Your task to perform on an android device: open app "Pandora - Music & Podcasts" Image 0: 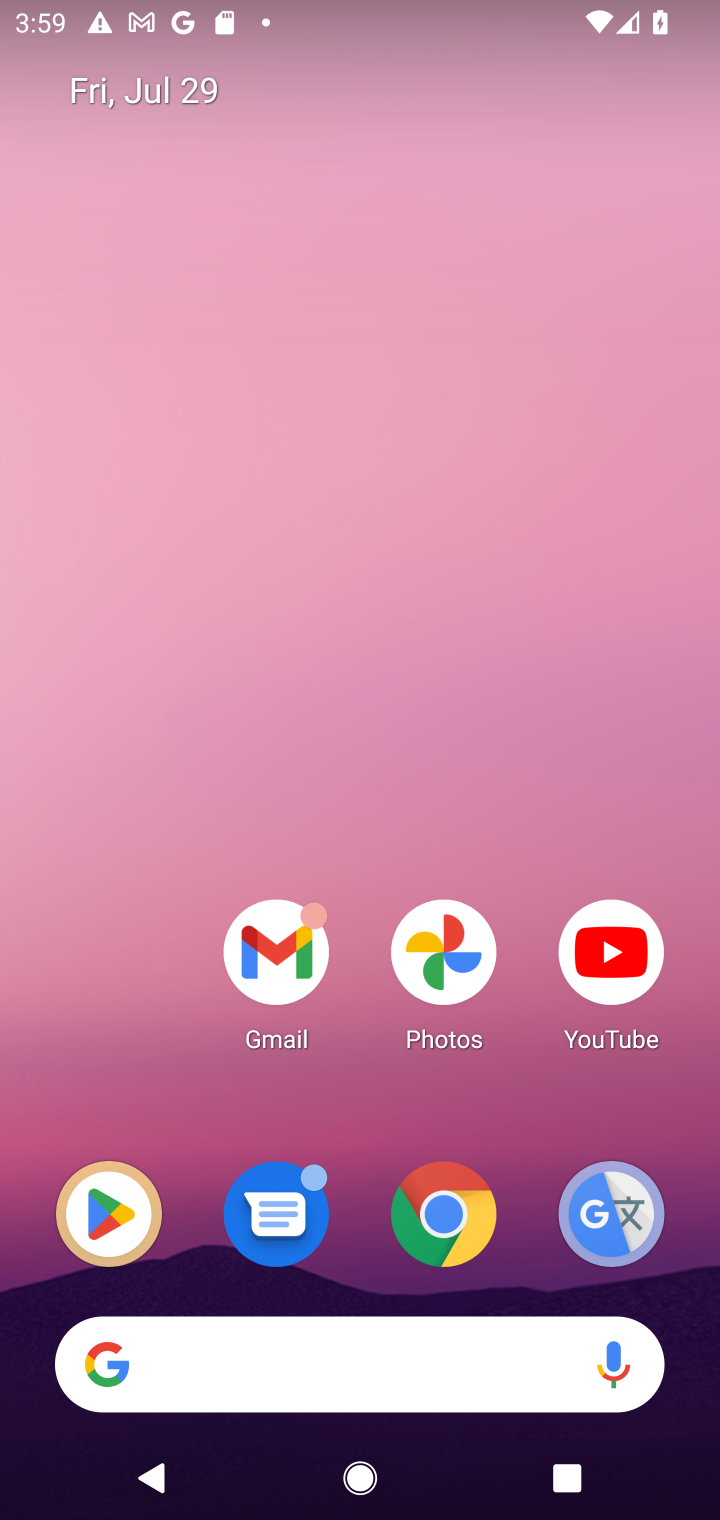
Step 0: click (99, 1236)
Your task to perform on an android device: open app "Pandora - Music & Podcasts" Image 1: 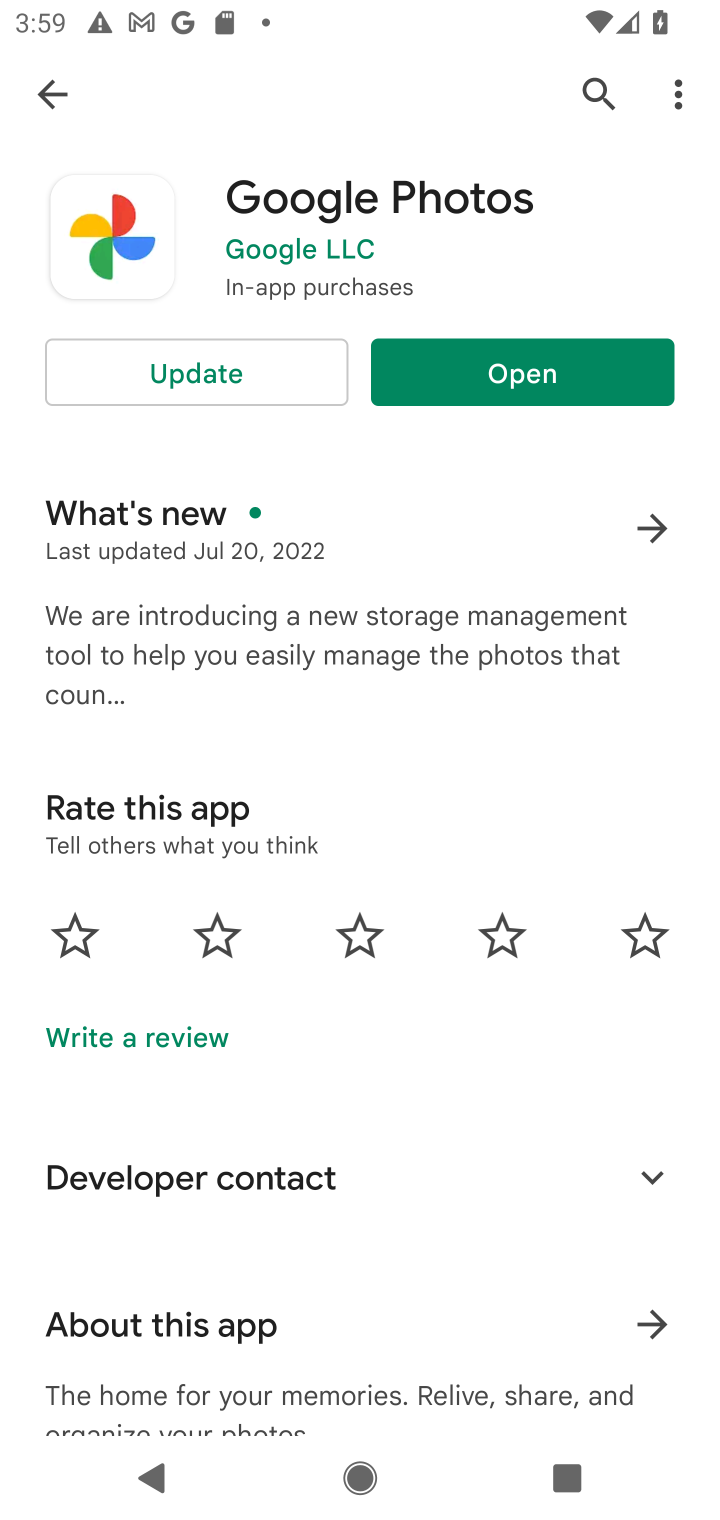
Step 1: click (52, 104)
Your task to perform on an android device: open app "Pandora - Music & Podcasts" Image 2: 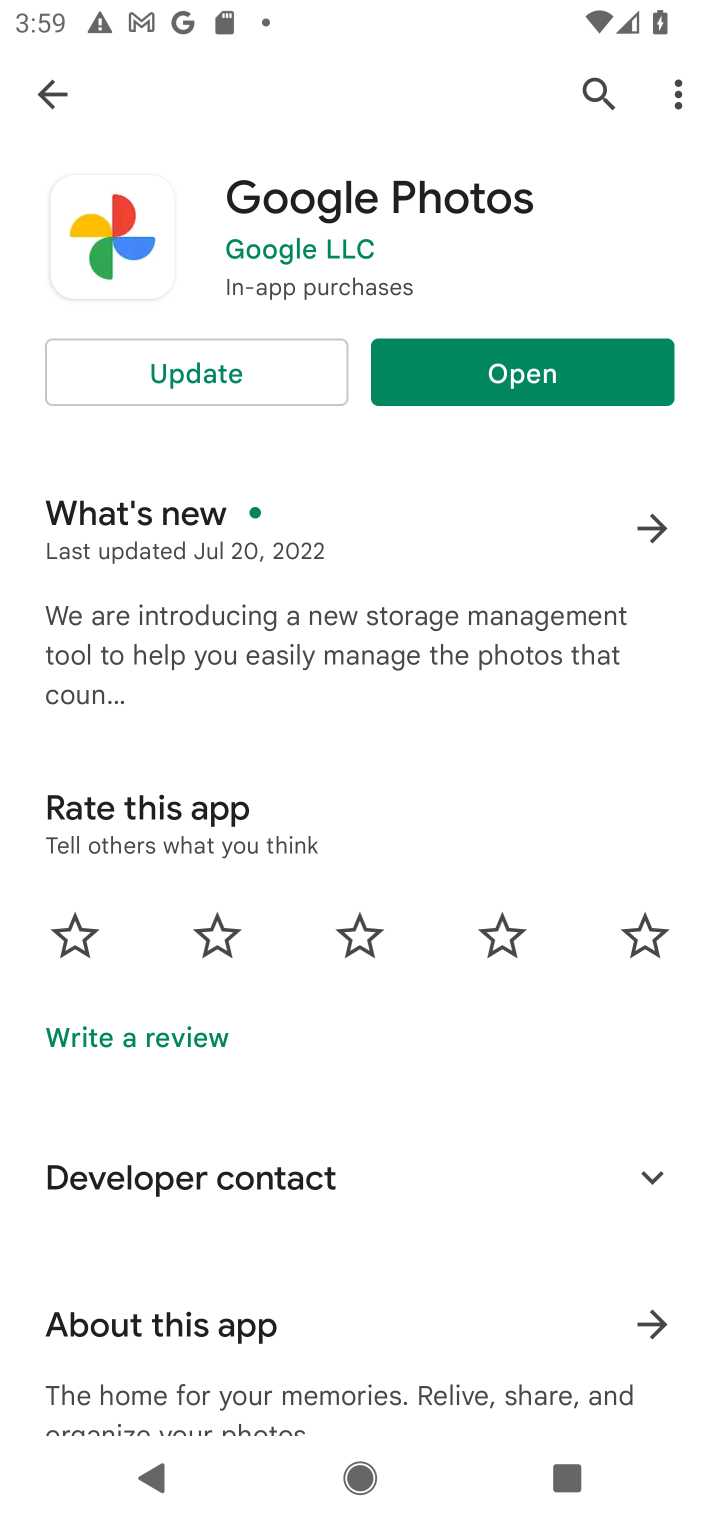
Step 2: click (54, 96)
Your task to perform on an android device: open app "Pandora - Music & Podcasts" Image 3: 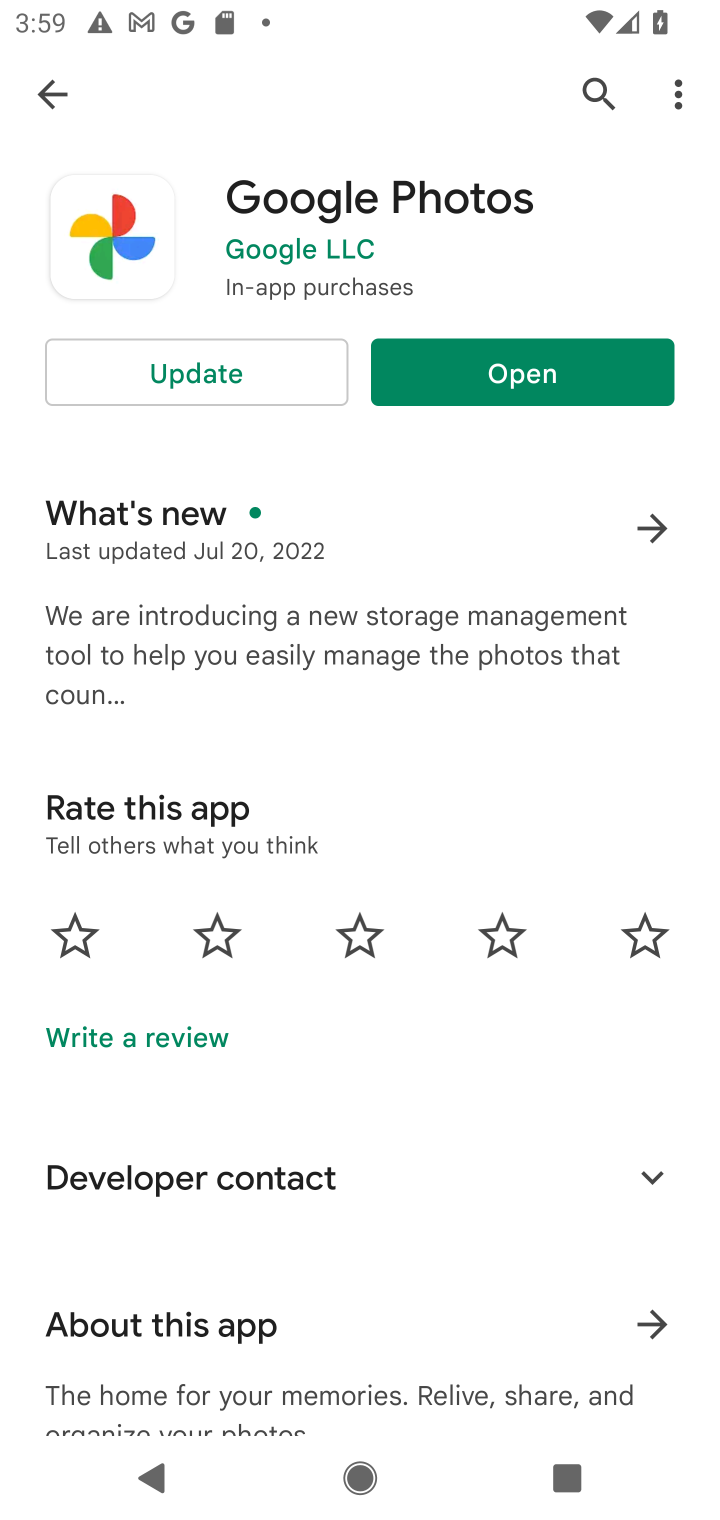
Step 3: click (54, 98)
Your task to perform on an android device: open app "Pandora - Music & Podcasts" Image 4: 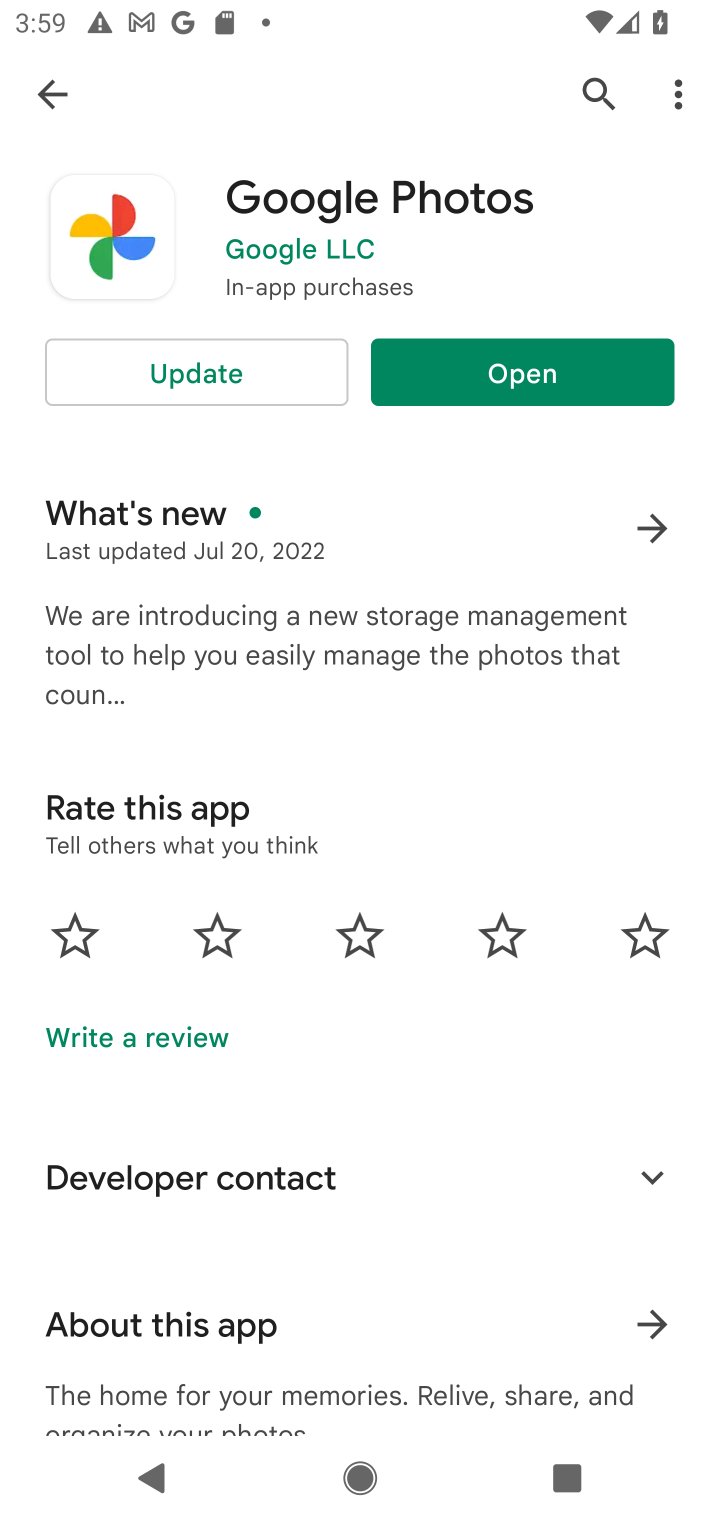
Step 4: press back button
Your task to perform on an android device: open app "Pandora - Music & Podcasts" Image 5: 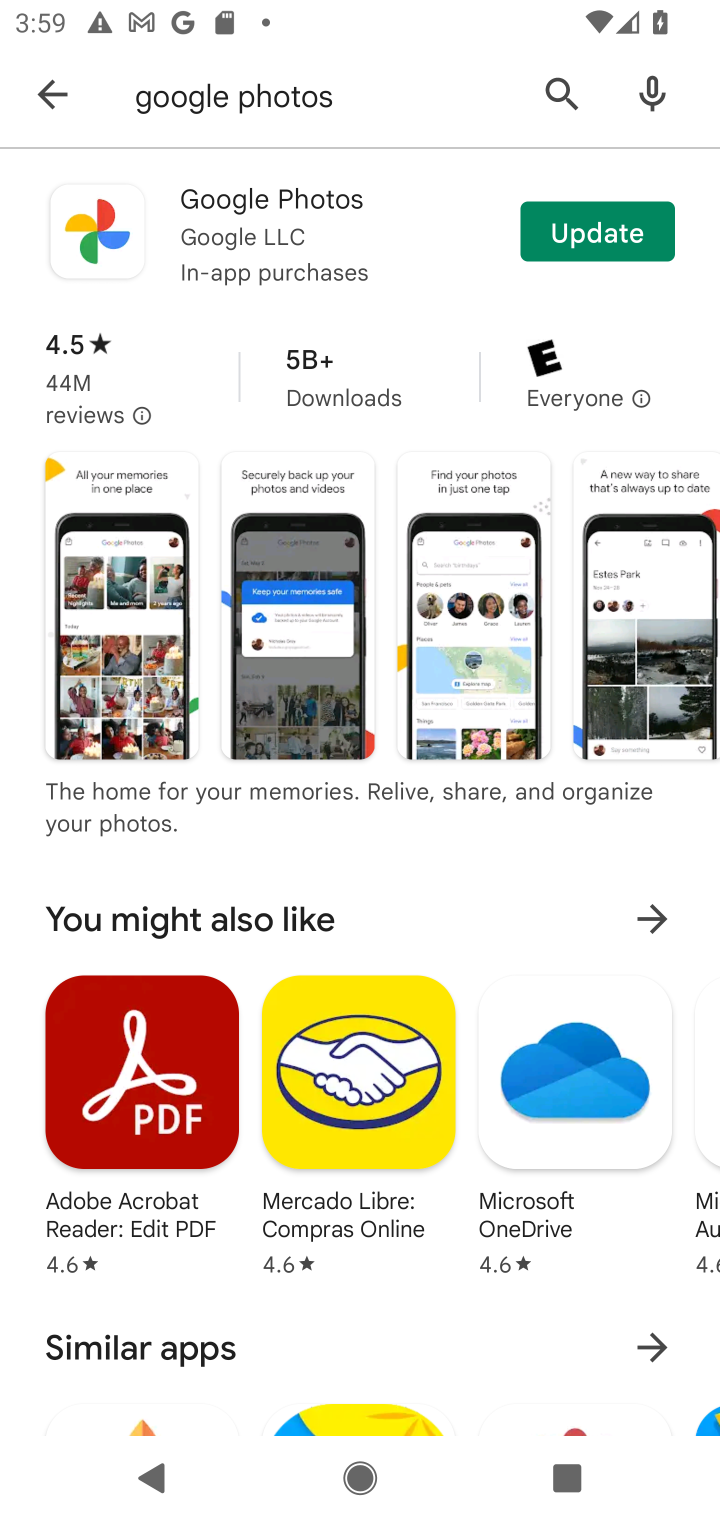
Step 5: click (276, 96)
Your task to perform on an android device: open app "Pandora - Music & Podcasts" Image 6: 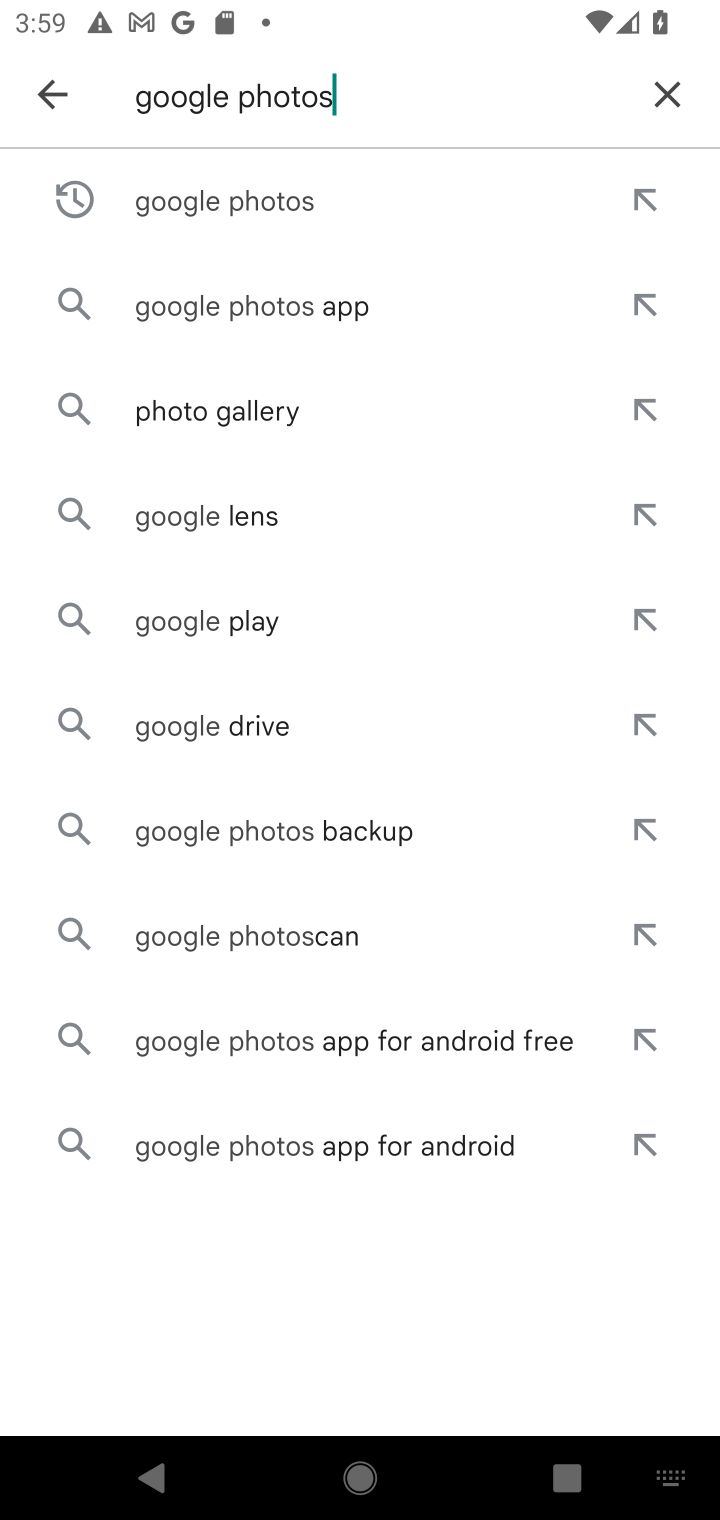
Step 6: click (669, 93)
Your task to perform on an android device: open app "Pandora - Music & Podcasts" Image 7: 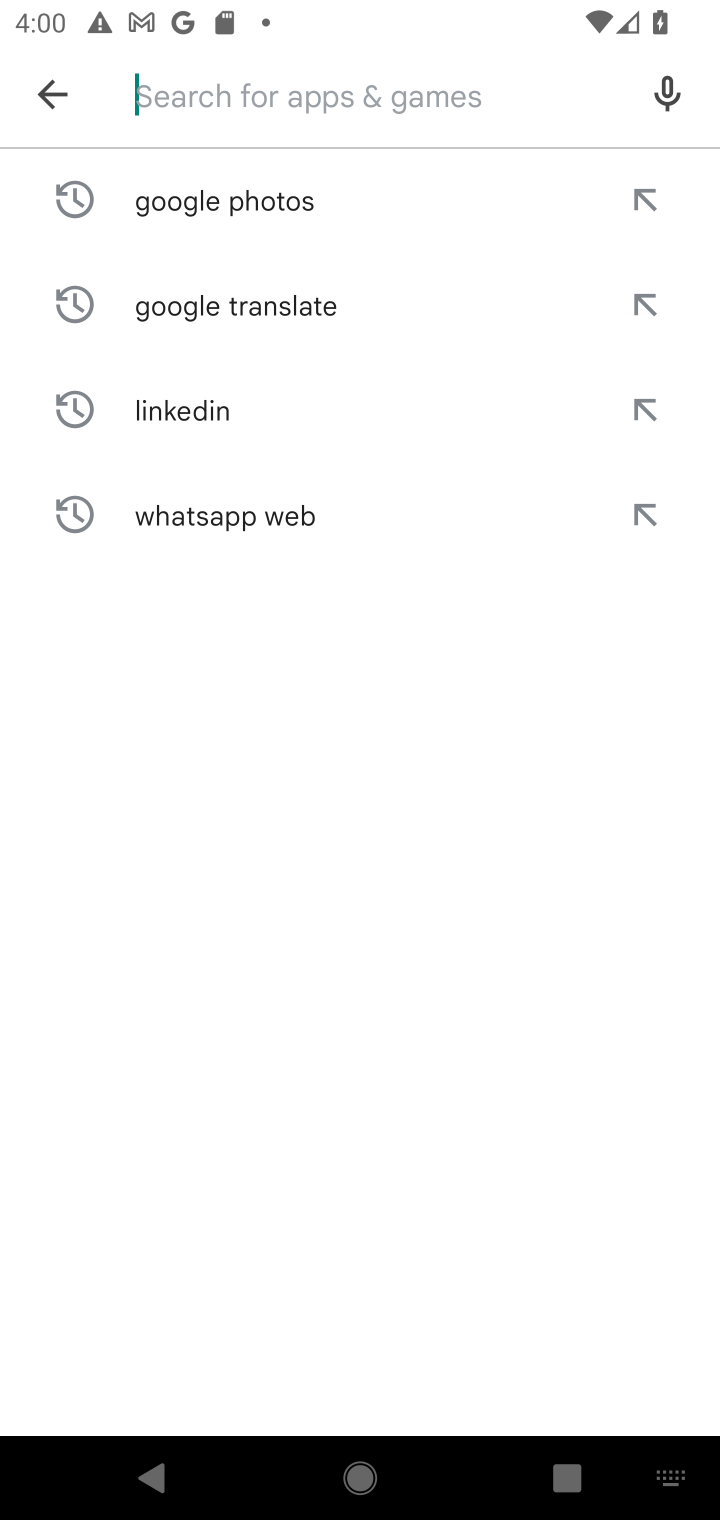
Step 7: type "Pandora"
Your task to perform on an android device: open app "Pandora - Music & Podcasts" Image 8: 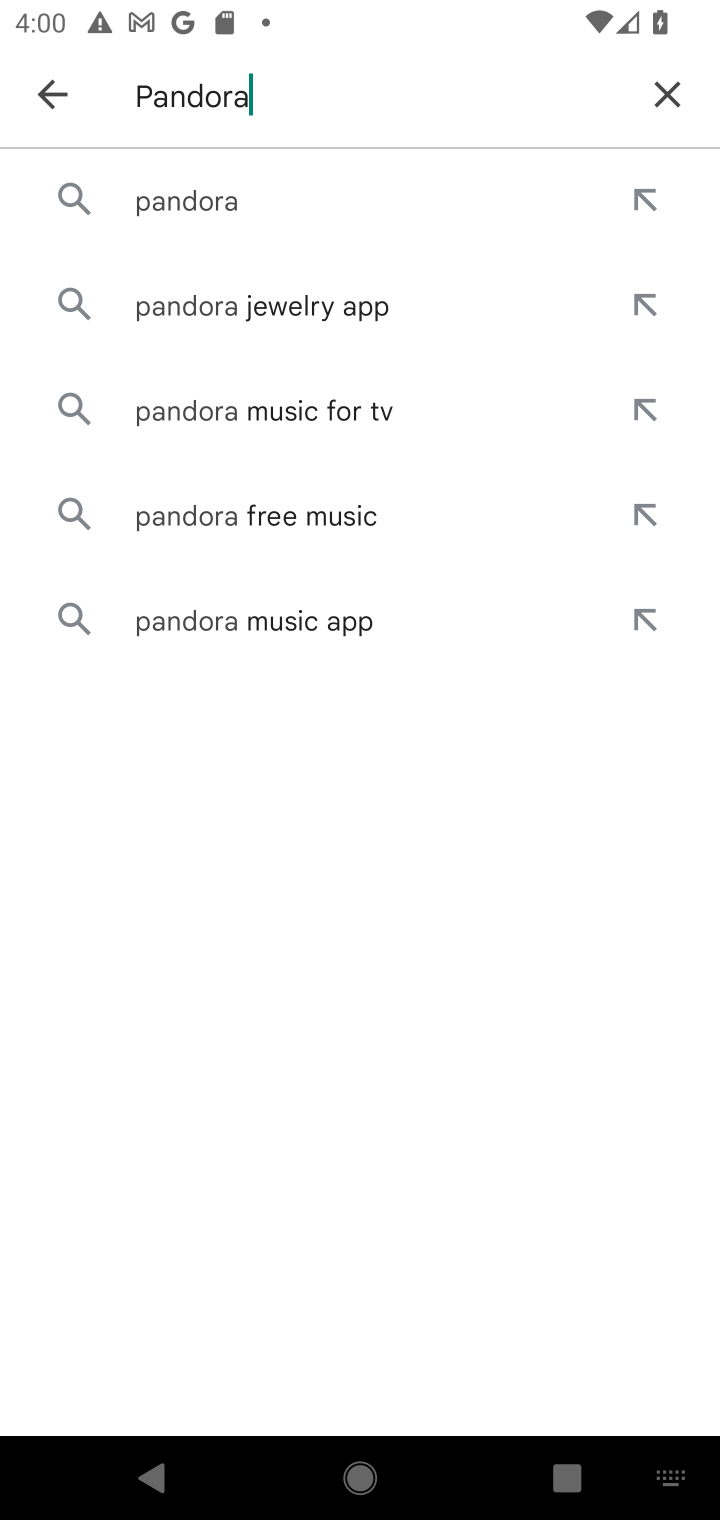
Step 8: click (216, 213)
Your task to perform on an android device: open app "Pandora - Music & Podcasts" Image 9: 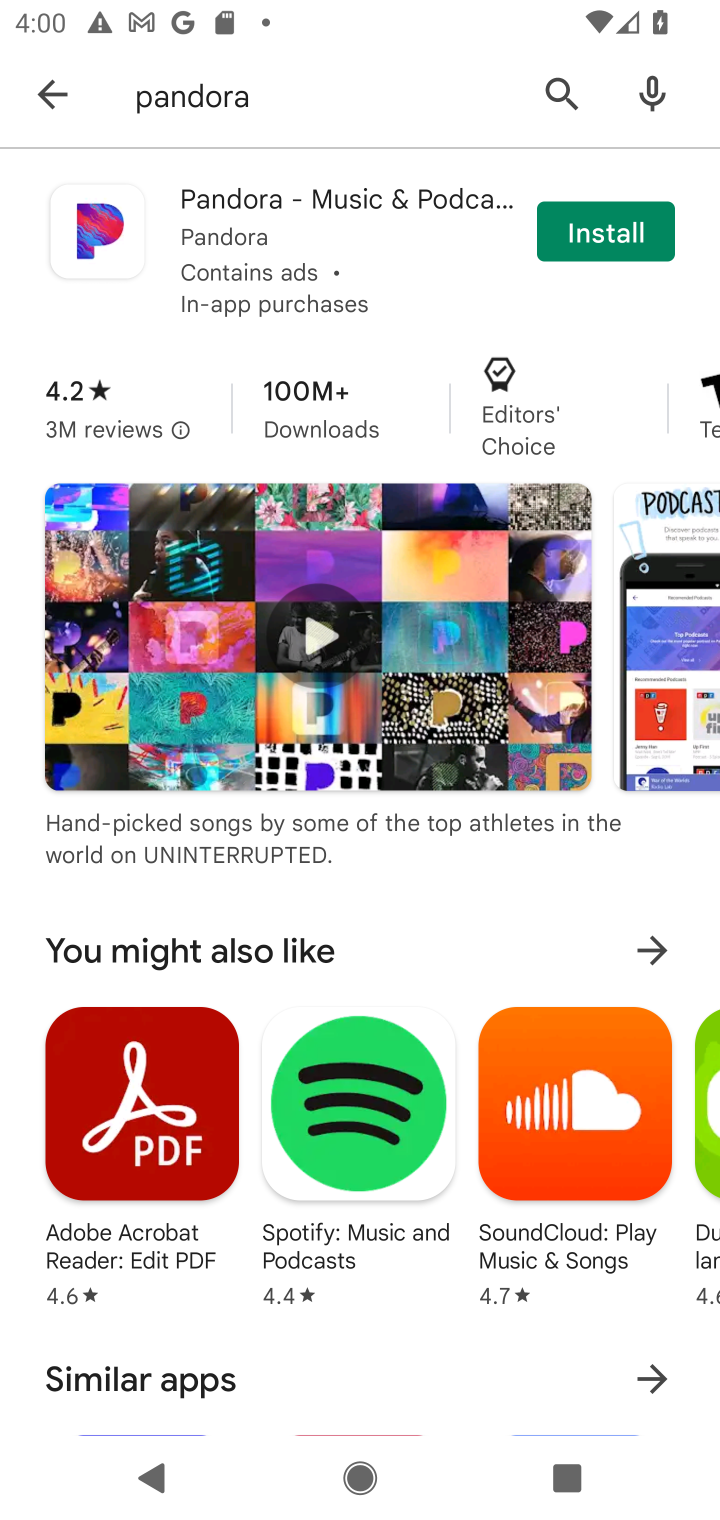
Step 9: task complete